Your task to perform on an android device: turn off improve location accuracy Image 0: 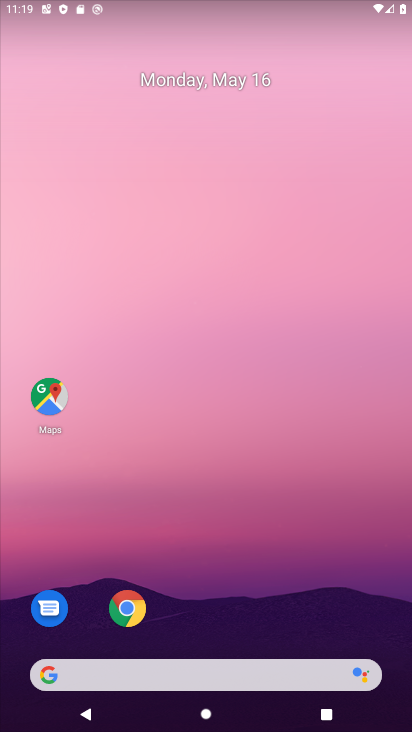
Step 0: press home button
Your task to perform on an android device: turn off improve location accuracy Image 1: 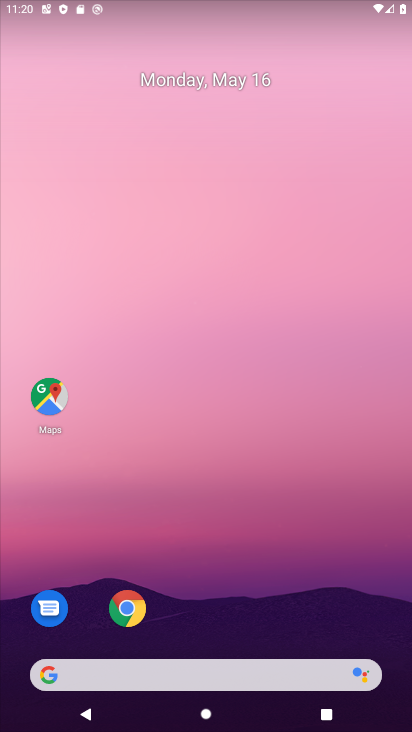
Step 1: drag from (164, 671) to (298, 219)
Your task to perform on an android device: turn off improve location accuracy Image 2: 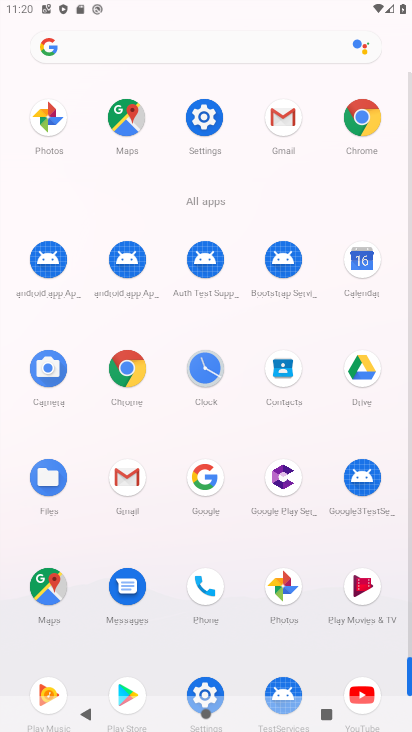
Step 2: click (202, 126)
Your task to perform on an android device: turn off improve location accuracy Image 3: 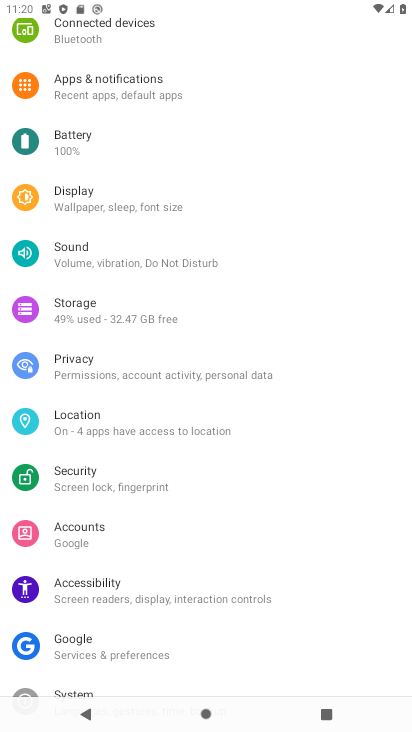
Step 3: click (131, 428)
Your task to perform on an android device: turn off improve location accuracy Image 4: 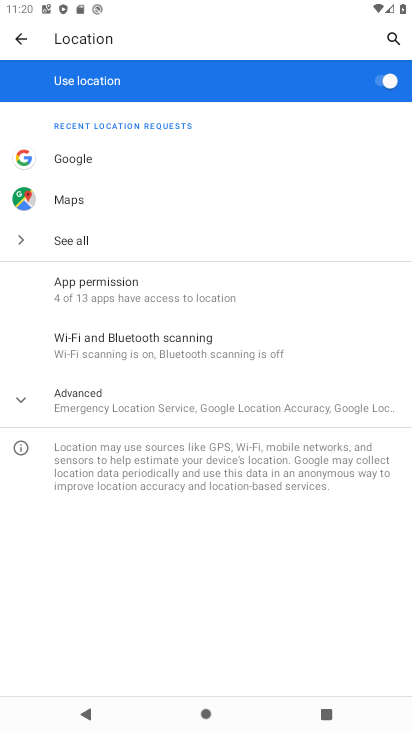
Step 4: click (114, 401)
Your task to perform on an android device: turn off improve location accuracy Image 5: 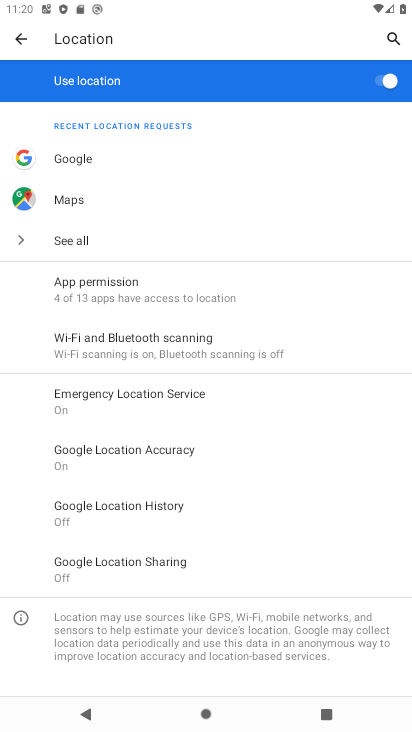
Step 5: click (139, 448)
Your task to perform on an android device: turn off improve location accuracy Image 6: 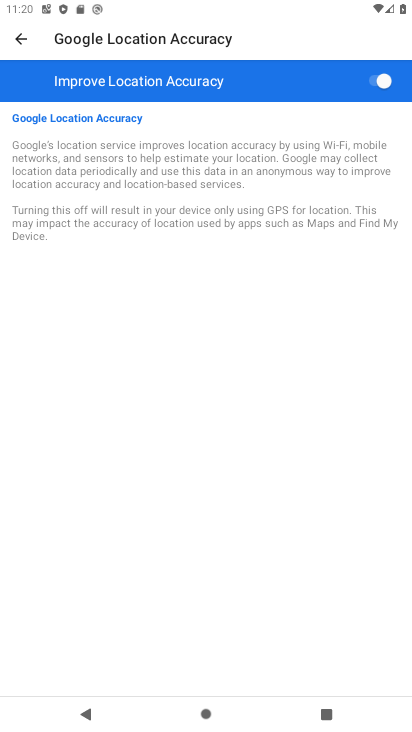
Step 6: click (372, 83)
Your task to perform on an android device: turn off improve location accuracy Image 7: 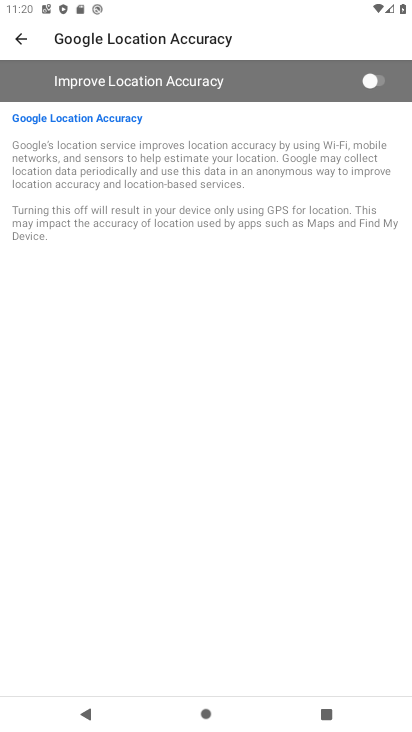
Step 7: task complete